Your task to perform on an android device: Add "razer blade" to the cart on ebay Image 0: 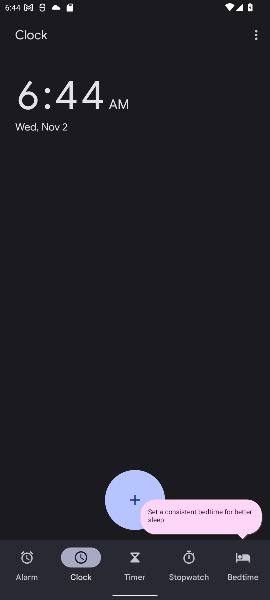
Step 0: press home button
Your task to perform on an android device: Add "razer blade" to the cart on ebay Image 1: 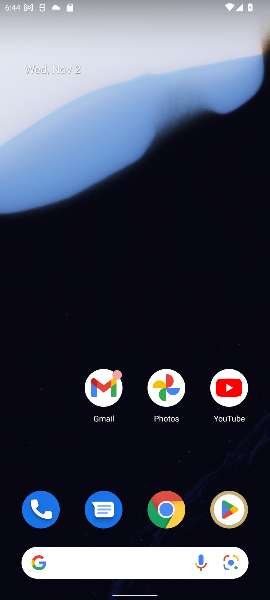
Step 1: click (110, 568)
Your task to perform on an android device: Add "razer blade" to the cart on ebay Image 2: 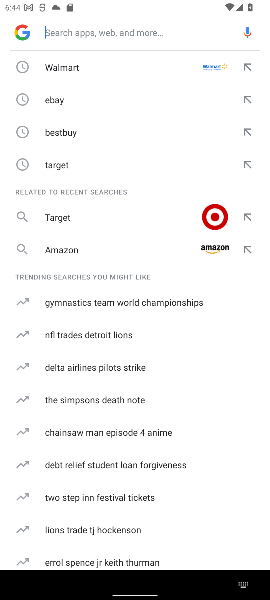
Step 2: click (58, 99)
Your task to perform on an android device: Add "razer blade" to the cart on ebay Image 3: 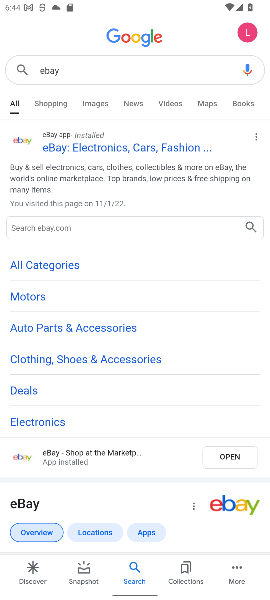
Step 3: drag from (197, 379) to (194, 319)
Your task to perform on an android device: Add "razer blade" to the cart on ebay Image 4: 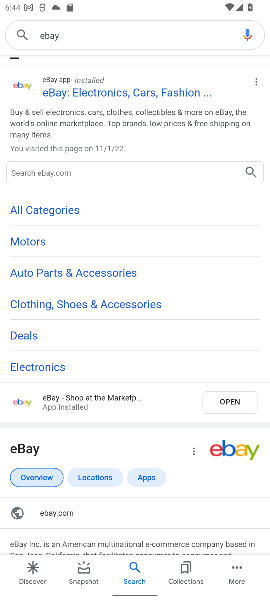
Step 4: click (51, 511)
Your task to perform on an android device: Add "razer blade" to the cart on ebay Image 5: 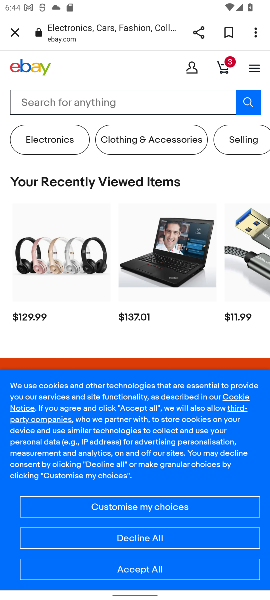
Step 5: click (69, 101)
Your task to perform on an android device: Add "razer blade" to the cart on ebay Image 6: 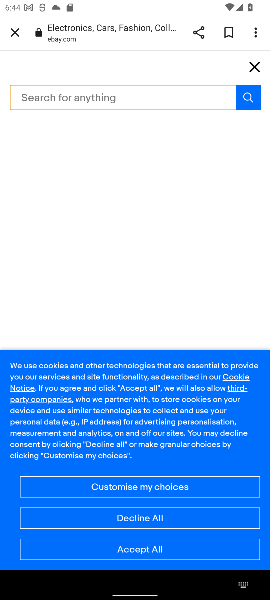
Step 6: type "razer blade"
Your task to perform on an android device: Add "razer blade" to the cart on ebay Image 7: 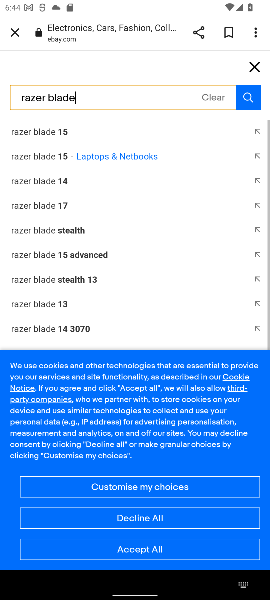
Step 7: click (245, 97)
Your task to perform on an android device: Add "razer blade" to the cart on ebay Image 8: 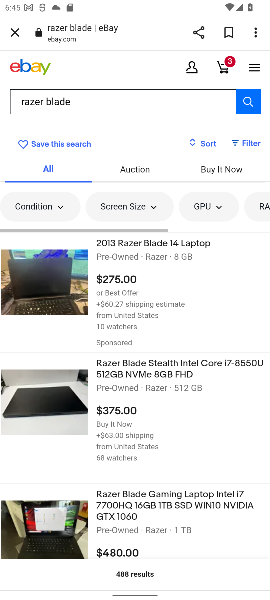
Step 8: click (130, 245)
Your task to perform on an android device: Add "razer blade" to the cart on ebay Image 9: 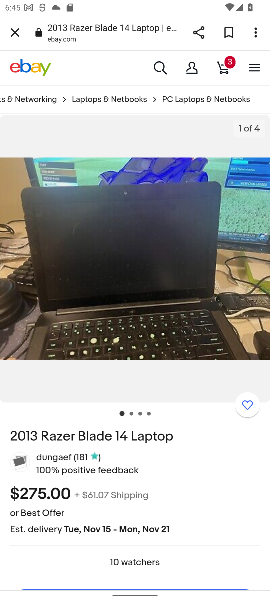
Step 9: drag from (200, 481) to (194, 270)
Your task to perform on an android device: Add "razer blade" to the cart on ebay Image 10: 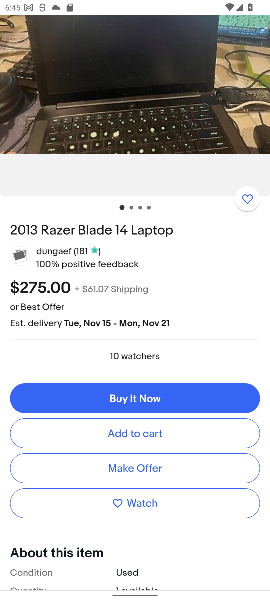
Step 10: click (151, 434)
Your task to perform on an android device: Add "razer blade" to the cart on ebay Image 11: 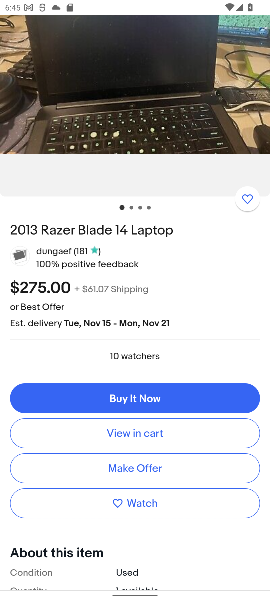
Step 11: task complete